Your task to perform on an android device: turn off picture-in-picture Image 0: 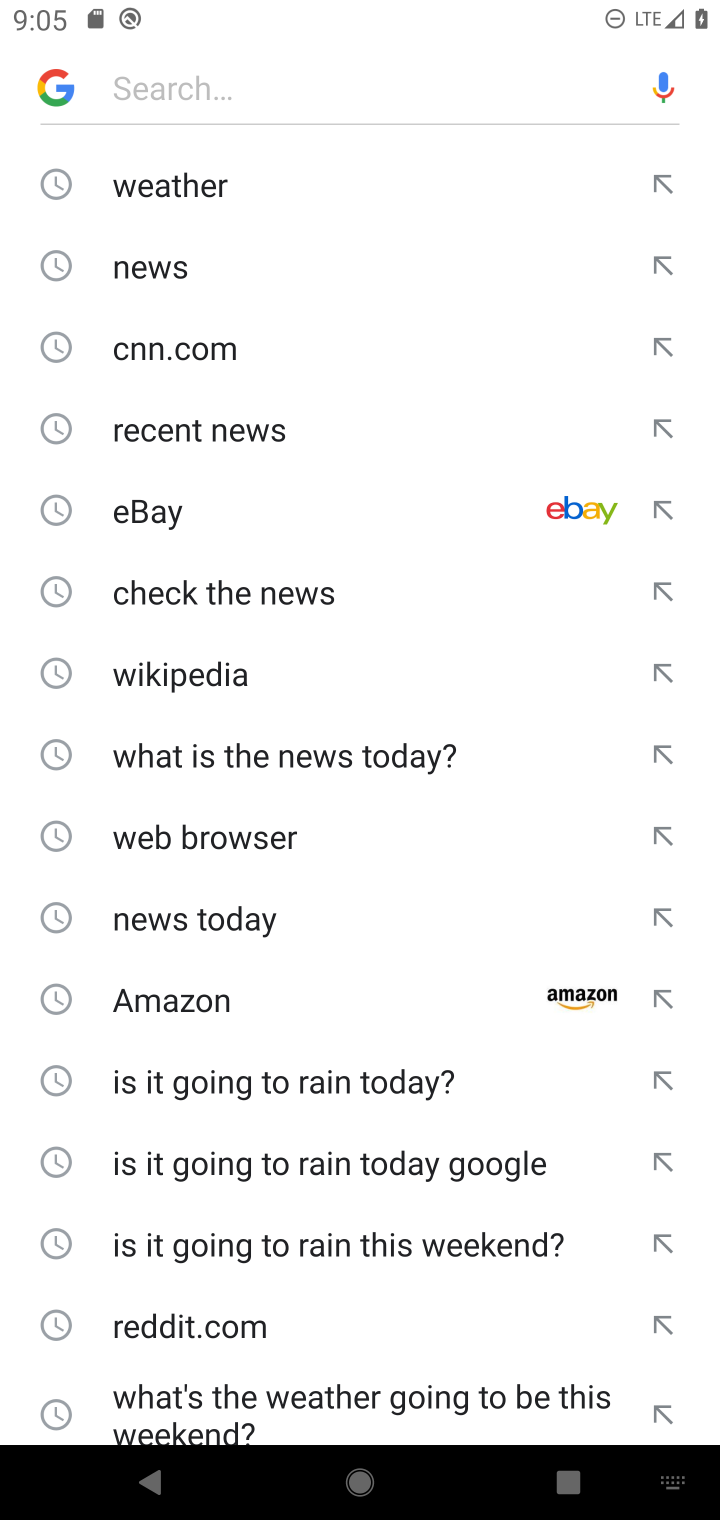
Step 0: press home button
Your task to perform on an android device: turn off picture-in-picture Image 1: 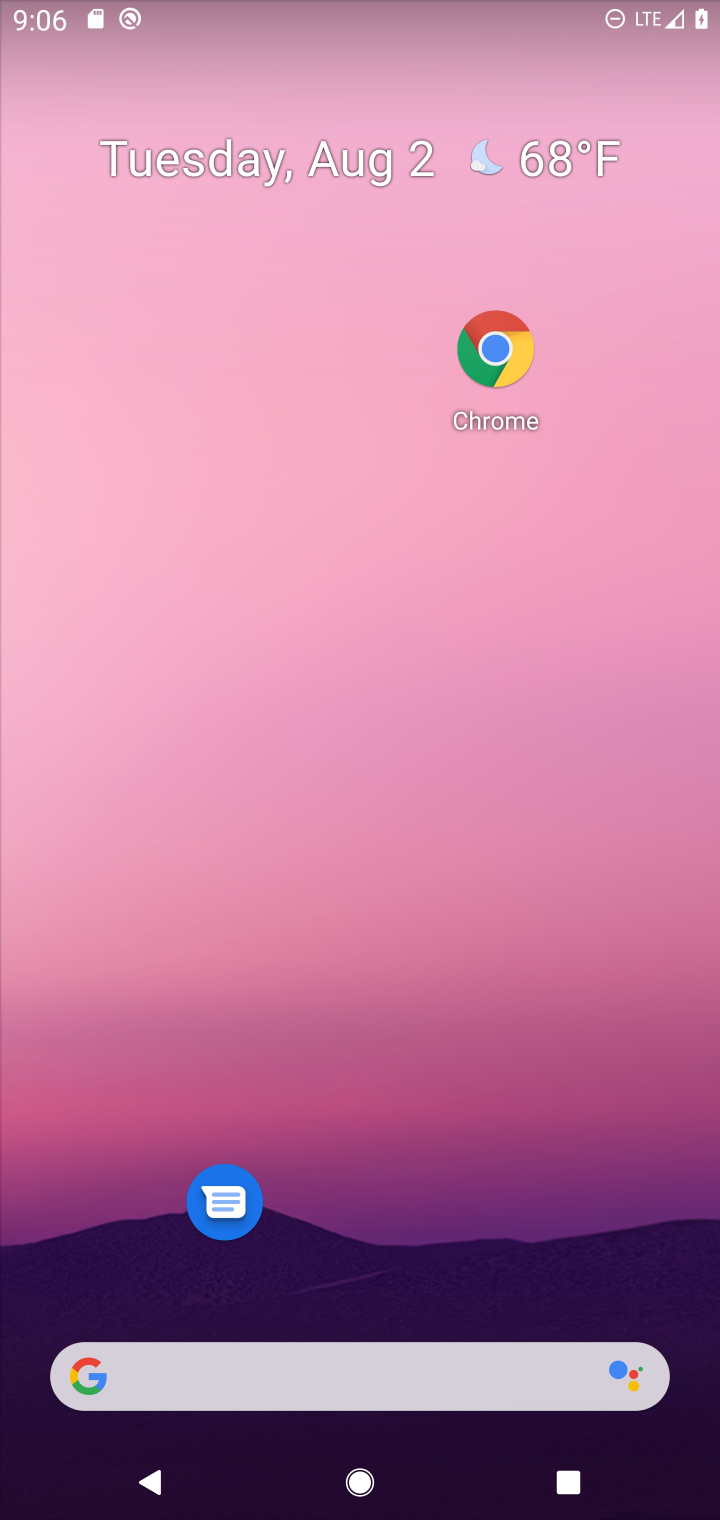
Step 1: click (507, 351)
Your task to perform on an android device: turn off picture-in-picture Image 2: 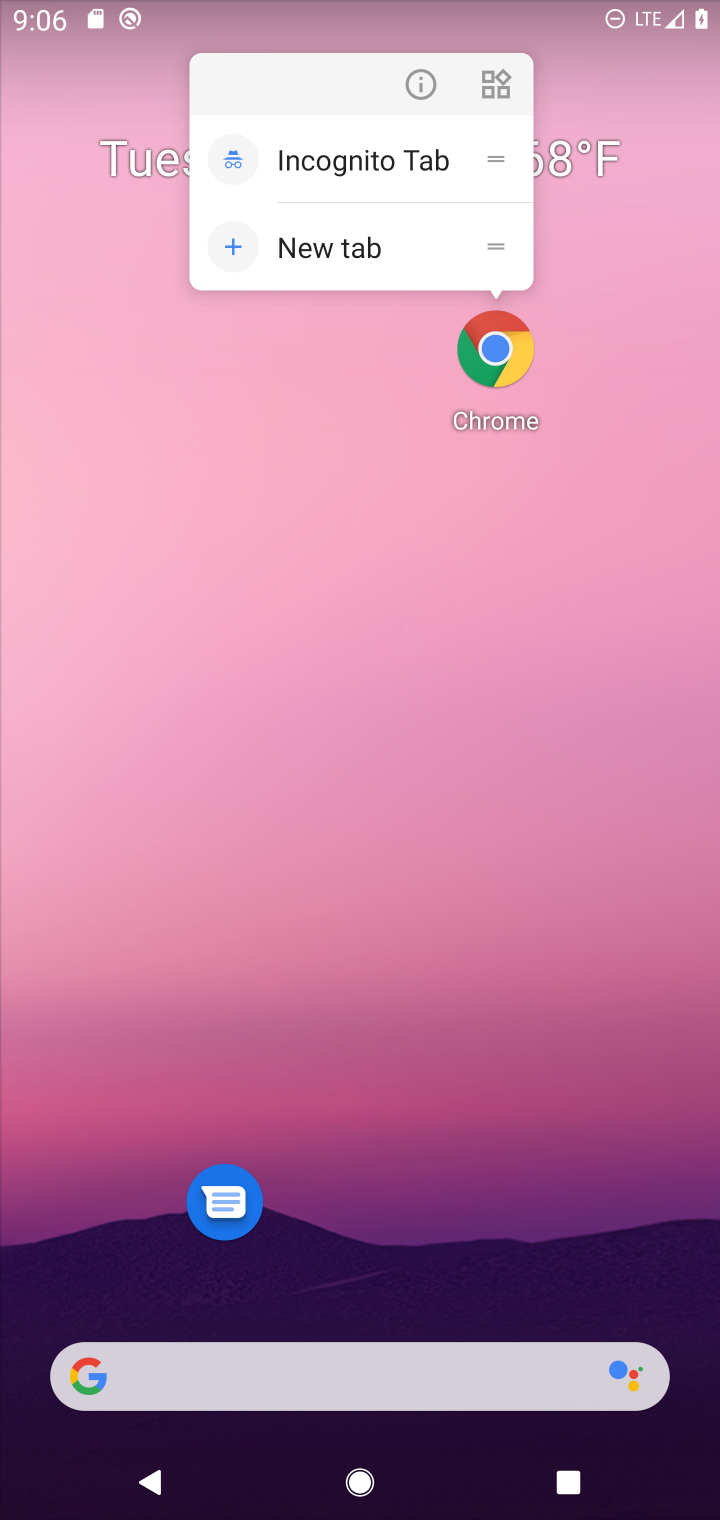
Step 2: click (427, 100)
Your task to perform on an android device: turn off picture-in-picture Image 3: 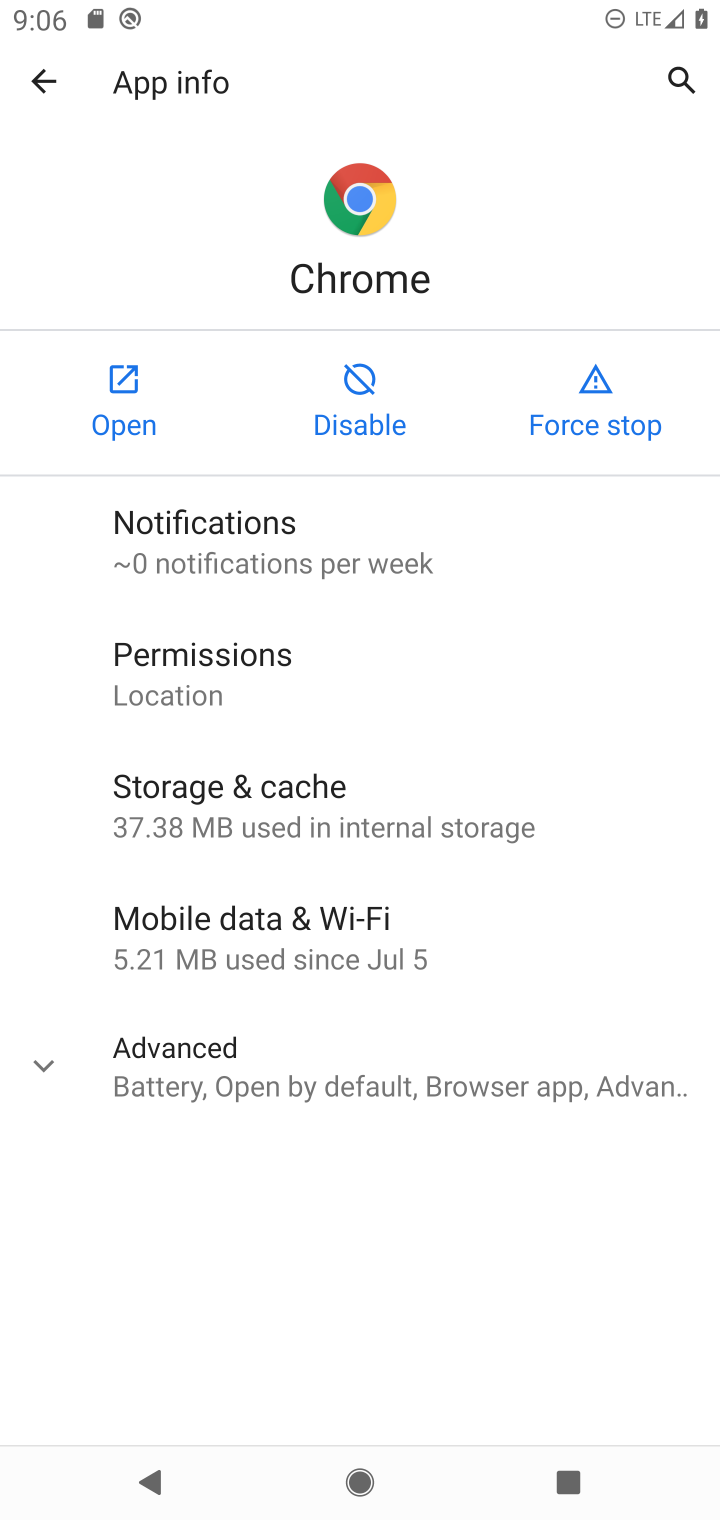
Step 3: click (37, 1061)
Your task to perform on an android device: turn off picture-in-picture Image 4: 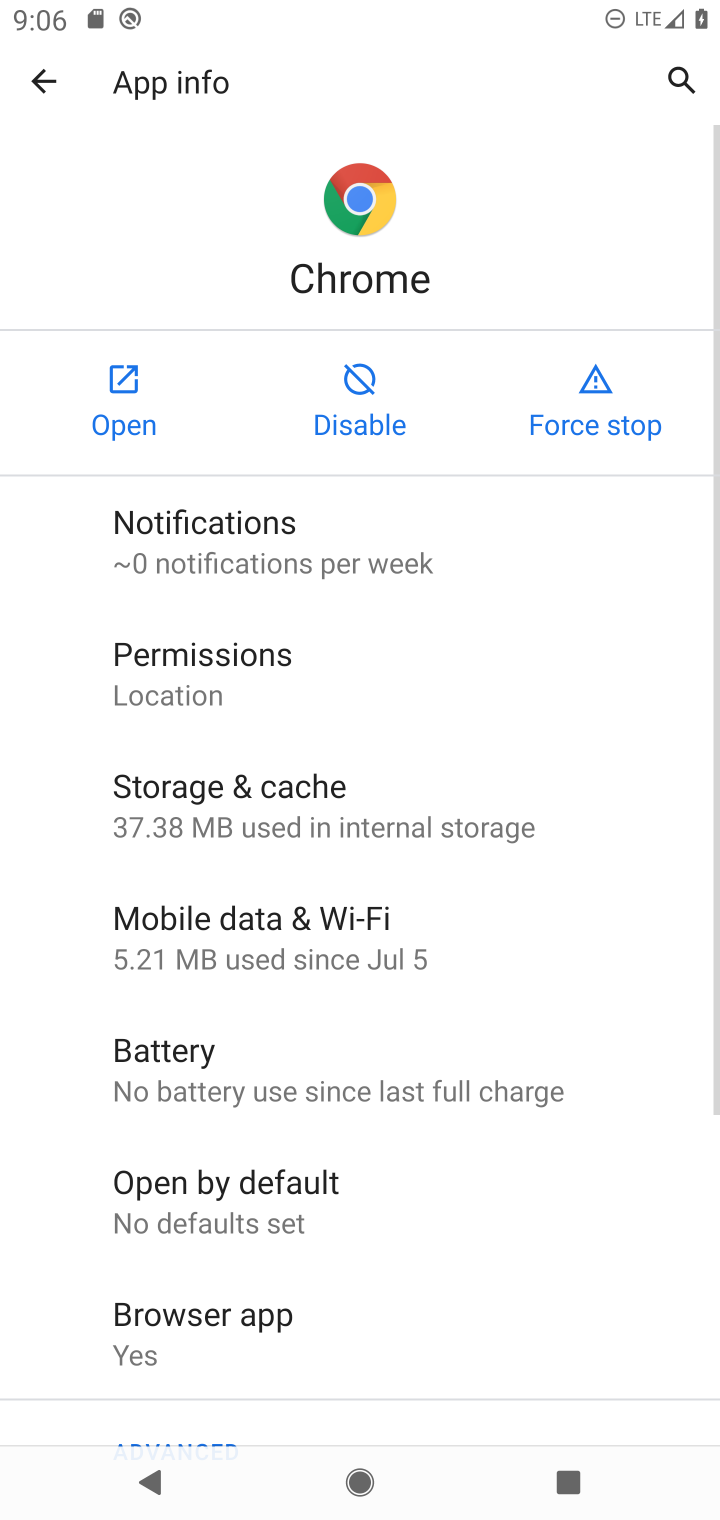
Step 4: drag from (441, 1251) to (422, 481)
Your task to perform on an android device: turn off picture-in-picture Image 5: 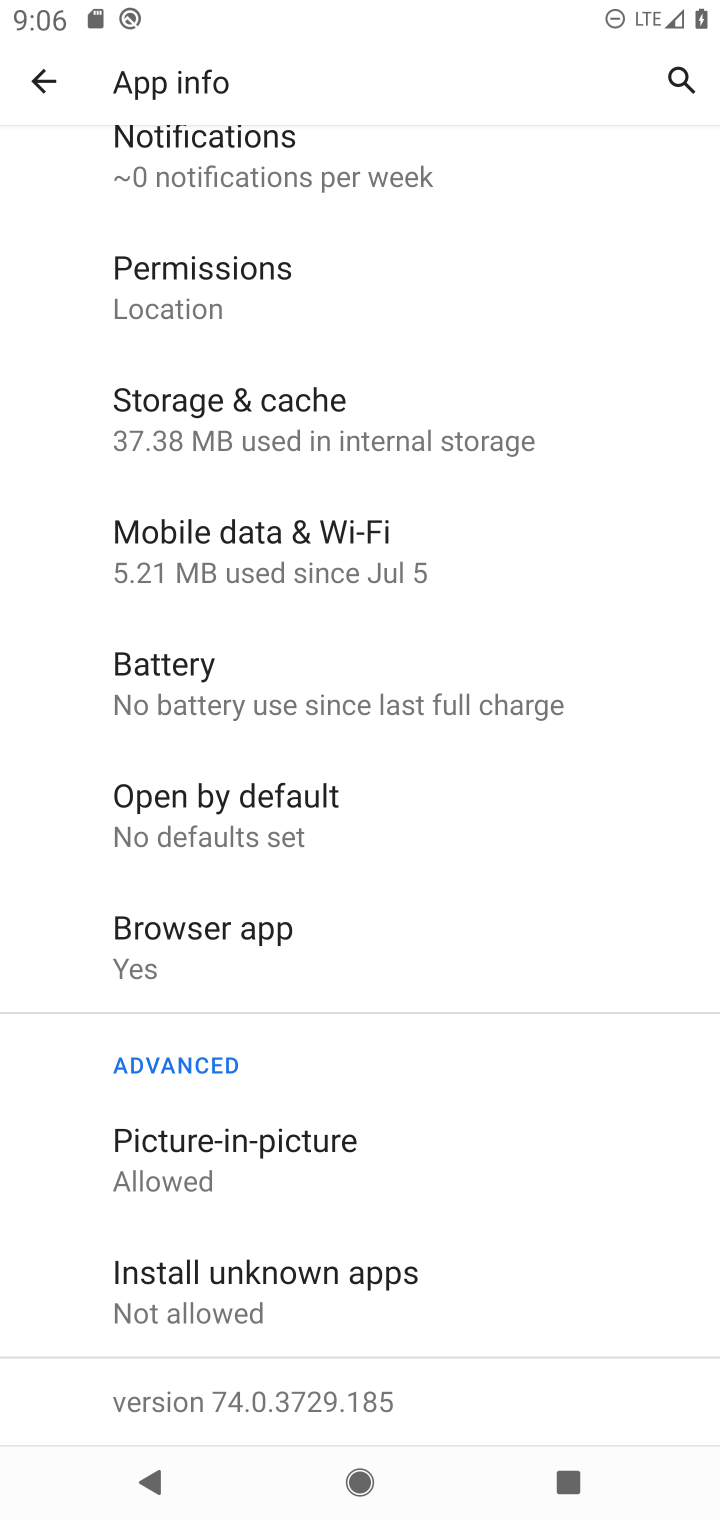
Step 5: click (181, 1135)
Your task to perform on an android device: turn off picture-in-picture Image 6: 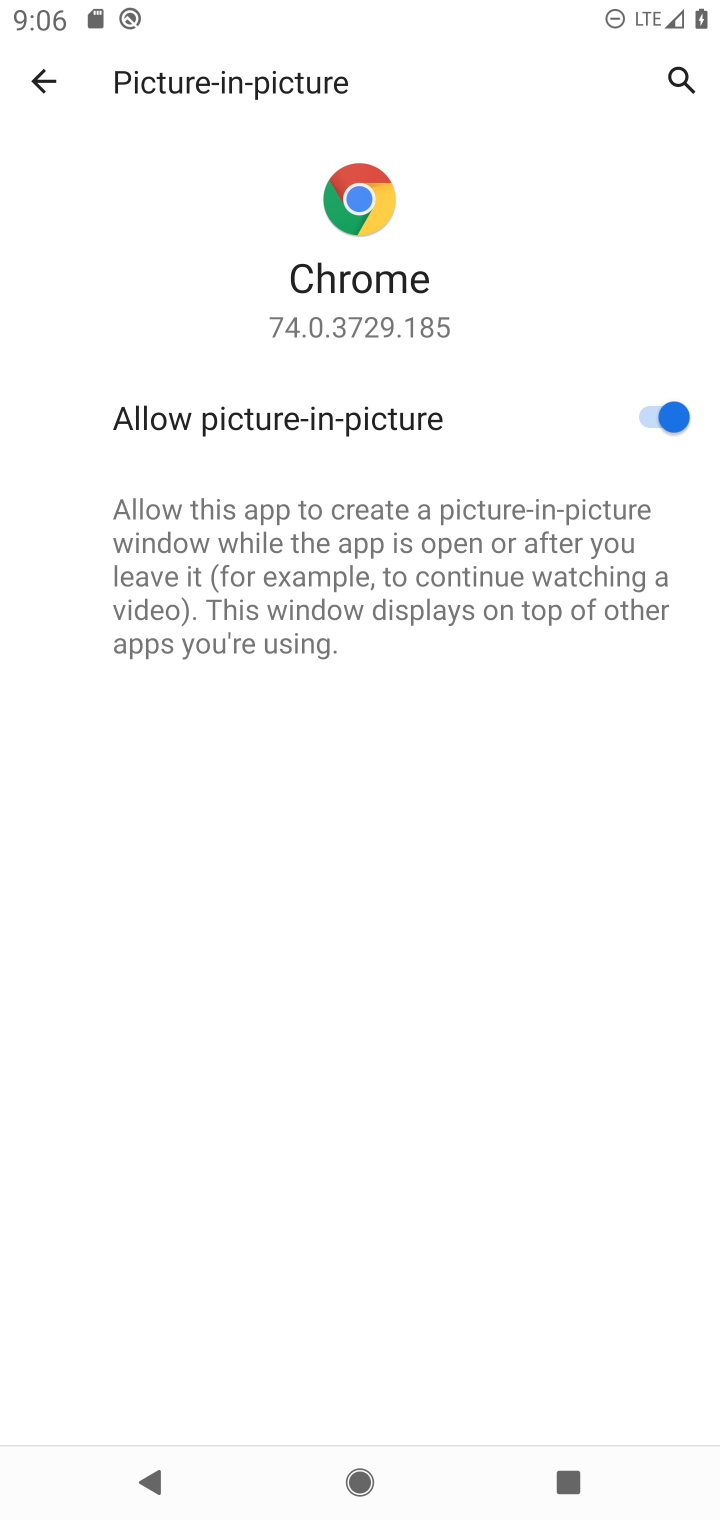
Step 6: click (664, 419)
Your task to perform on an android device: turn off picture-in-picture Image 7: 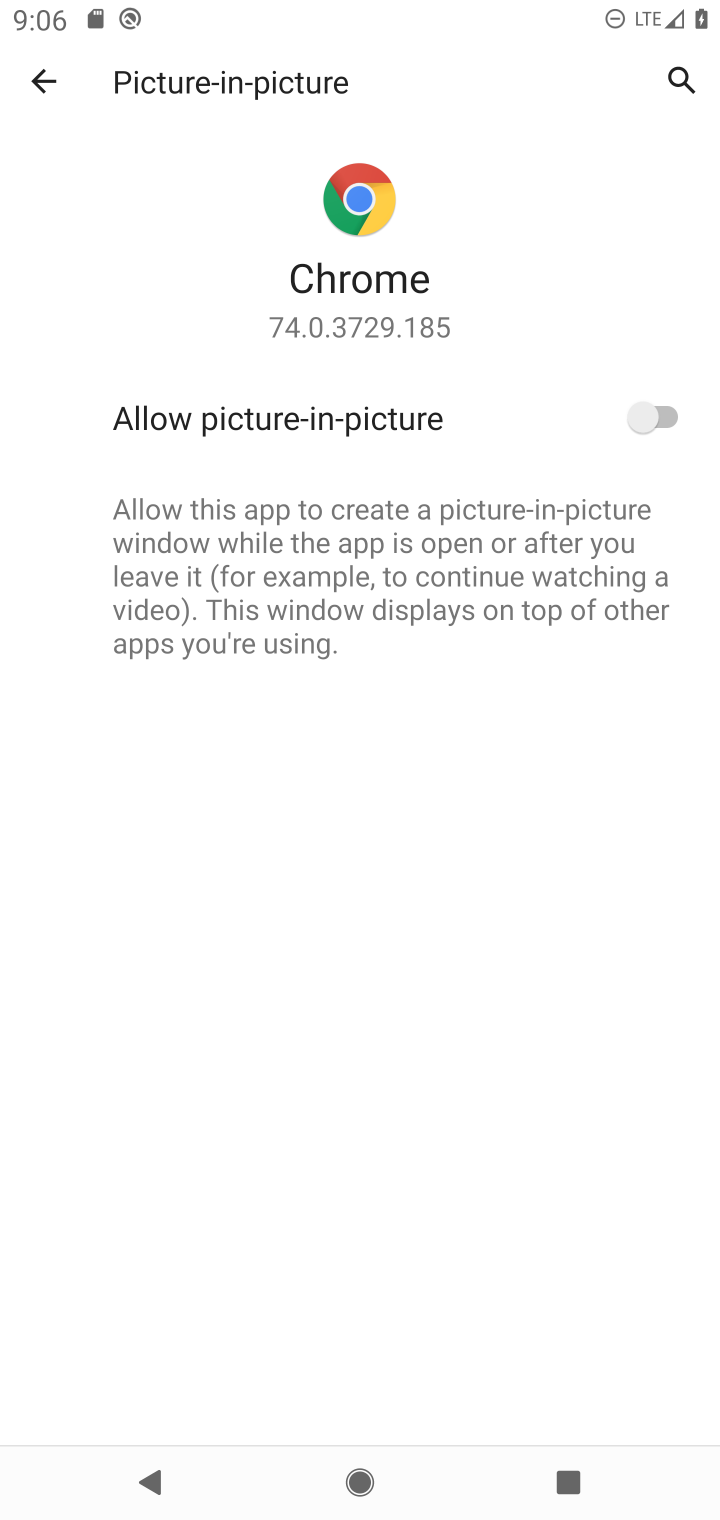
Step 7: task complete